Your task to perform on an android device: Open location settings Image 0: 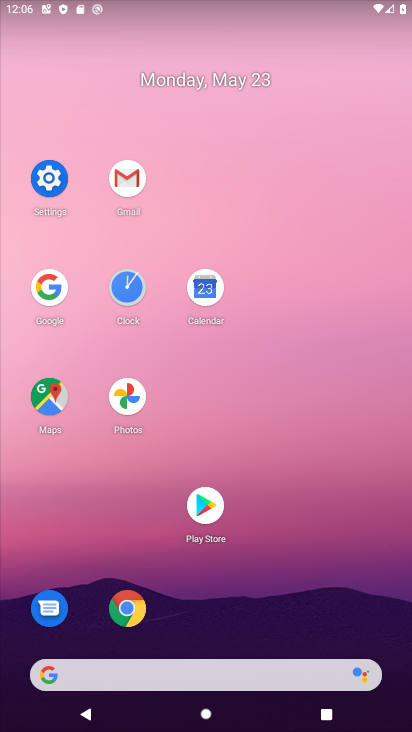
Step 0: click (63, 187)
Your task to perform on an android device: Open location settings Image 1: 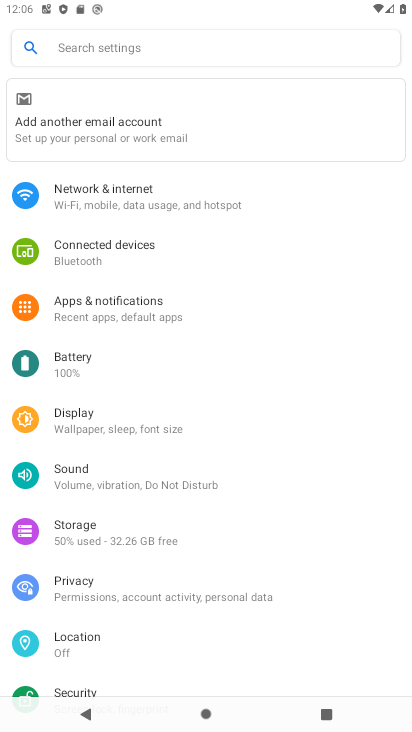
Step 1: click (109, 636)
Your task to perform on an android device: Open location settings Image 2: 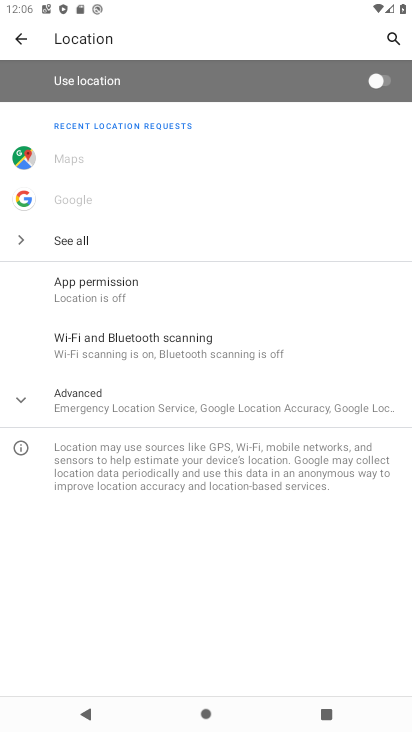
Step 2: task complete